Your task to perform on an android device: Open the map Image 0: 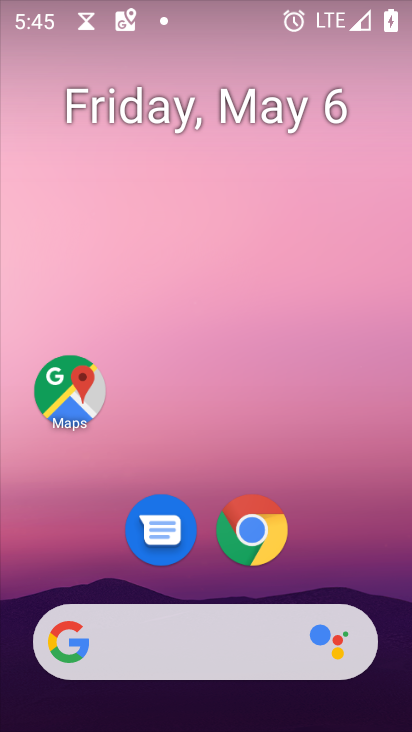
Step 0: click (78, 402)
Your task to perform on an android device: Open the map Image 1: 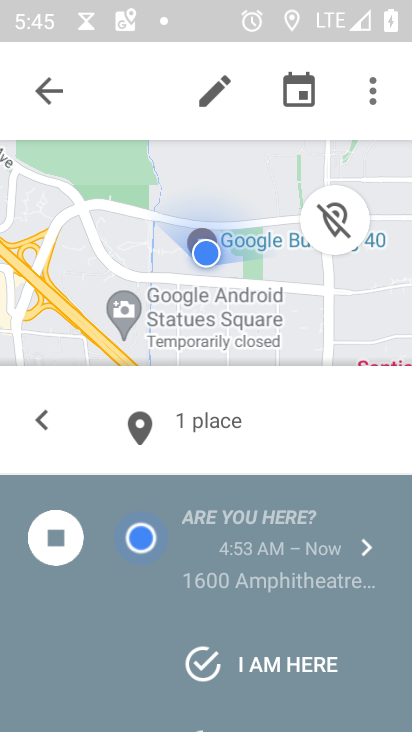
Step 1: task complete